Your task to perform on an android device: Go to eBay Image 0: 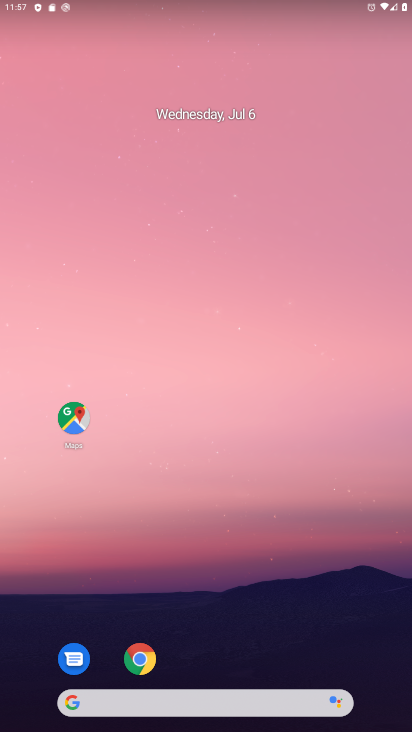
Step 0: click (139, 662)
Your task to perform on an android device: Go to eBay Image 1: 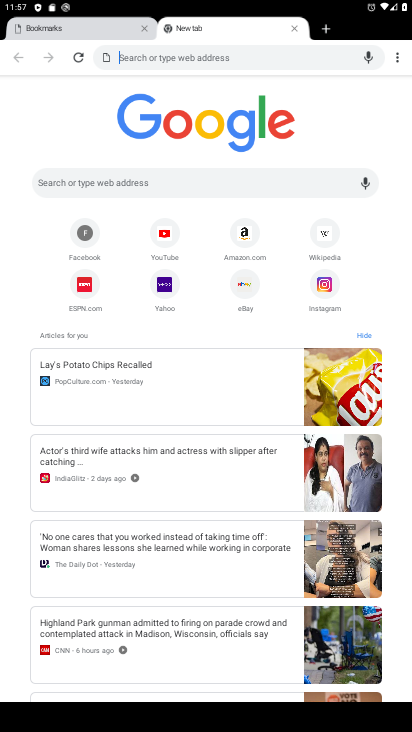
Step 1: click (247, 290)
Your task to perform on an android device: Go to eBay Image 2: 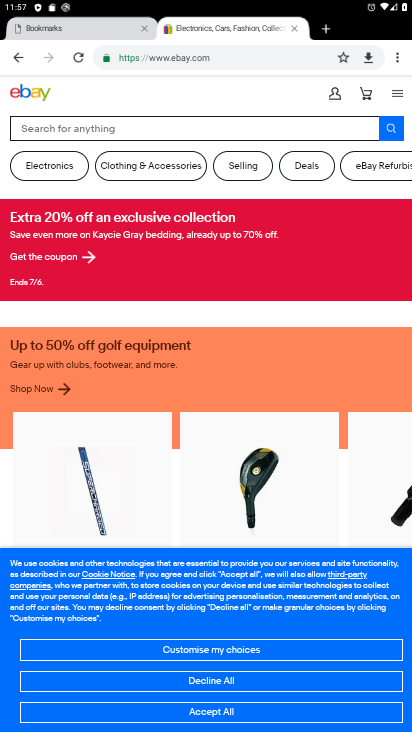
Step 2: task complete